Your task to perform on an android device: open device folders in google photos Image 0: 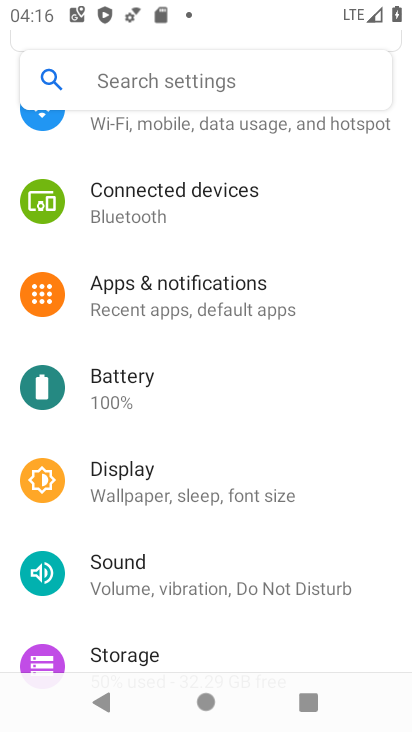
Step 0: press home button
Your task to perform on an android device: open device folders in google photos Image 1: 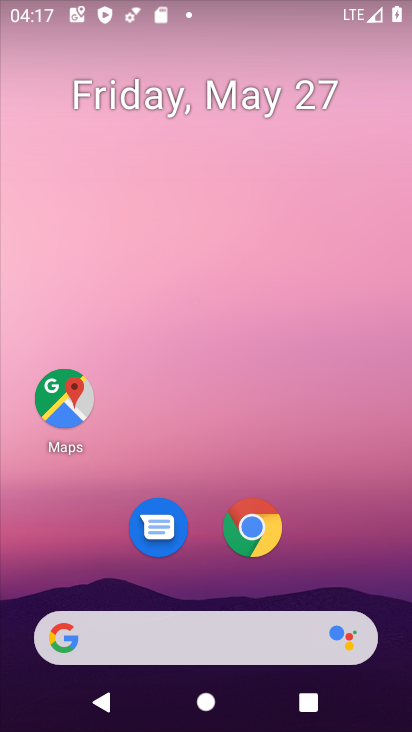
Step 1: drag from (301, 482) to (245, 117)
Your task to perform on an android device: open device folders in google photos Image 2: 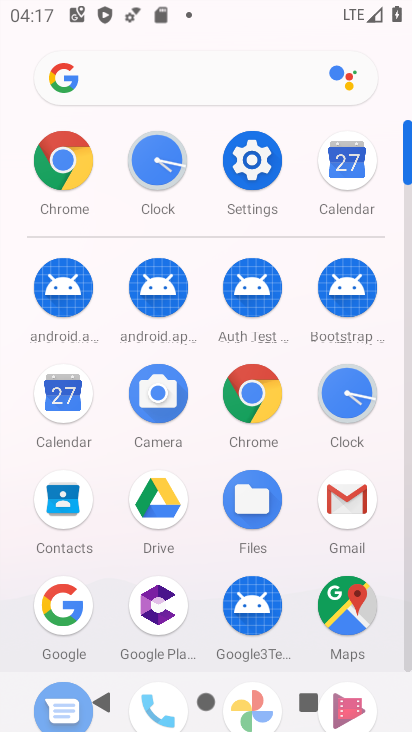
Step 2: drag from (290, 639) to (309, 293)
Your task to perform on an android device: open device folders in google photos Image 3: 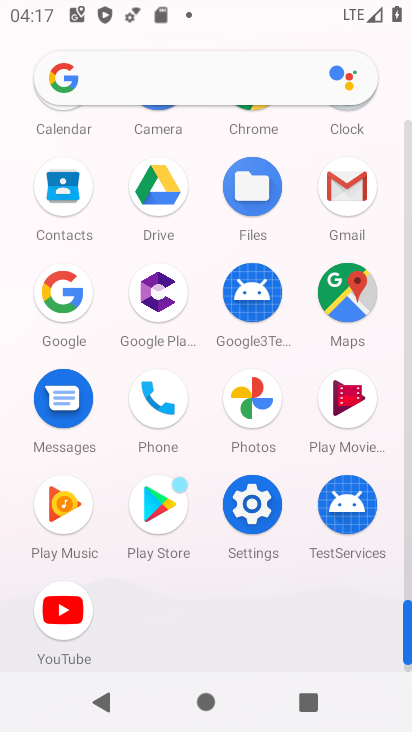
Step 3: click (257, 396)
Your task to perform on an android device: open device folders in google photos Image 4: 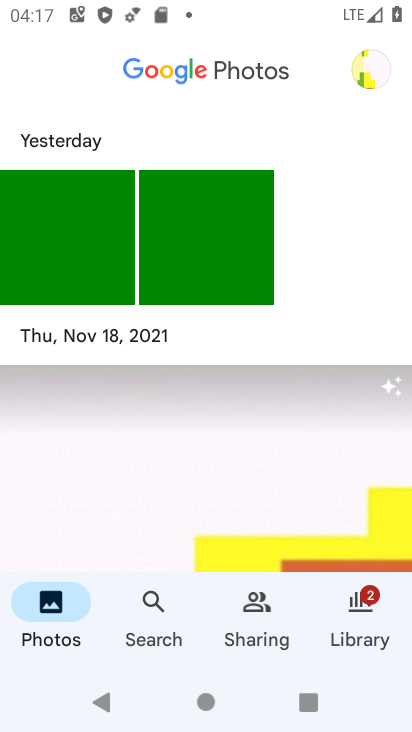
Step 4: press back button
Your task to perform on an android device: open device folders in google photos Image 5: 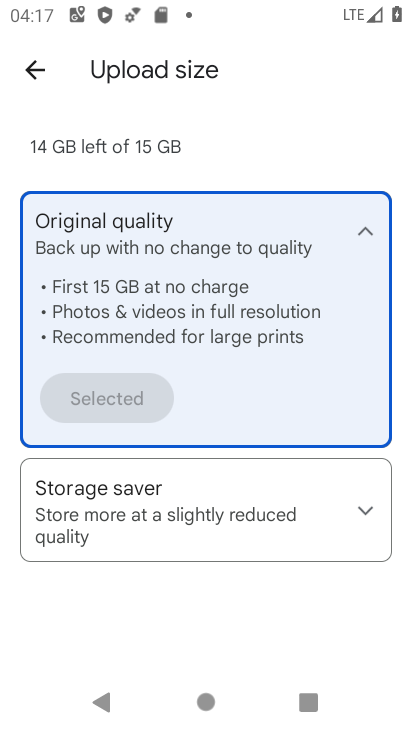
Step 5: click (33, 71)
Your task to perform on an android device: open device folders in google photos Image 6: 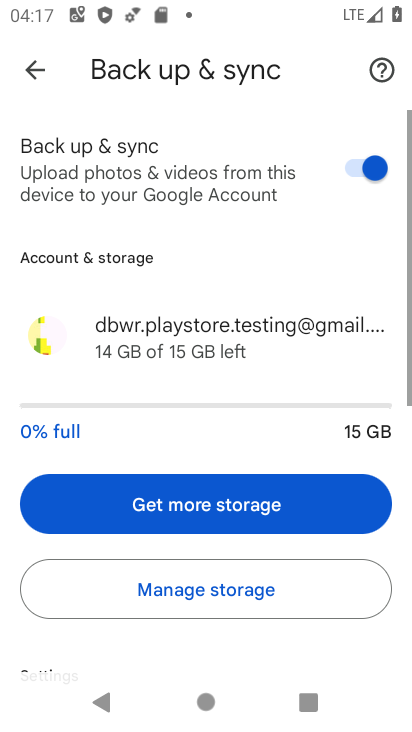
Step 6: click (33, 71)
Your task to perform on an android device: open device folders in google photos Image 7: 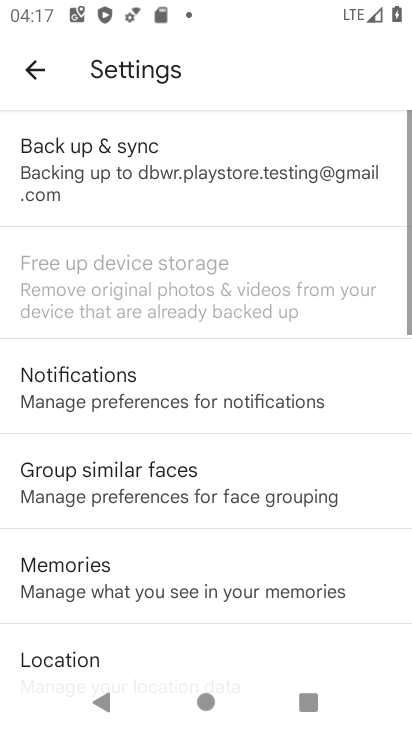
Step 7: click (33, 71)
Your task to perform on an android device: open device folders in google photos Image 8: 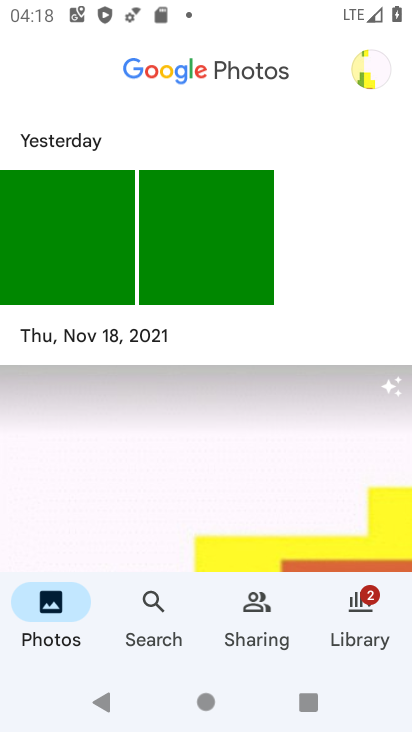
Step 8: click (364, 59)
Your task to perform on an android device: open device folders in google photos Image 9: 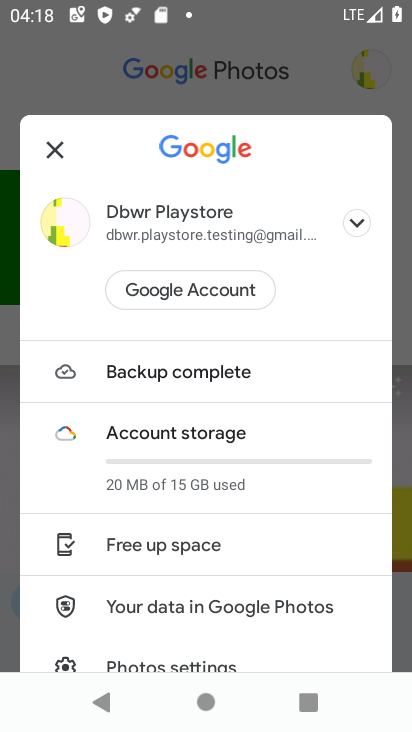
Step 9: drag from (281, 578) to (281, 422)
Your task to perform on an android device: open device folders in google photos Image 10: 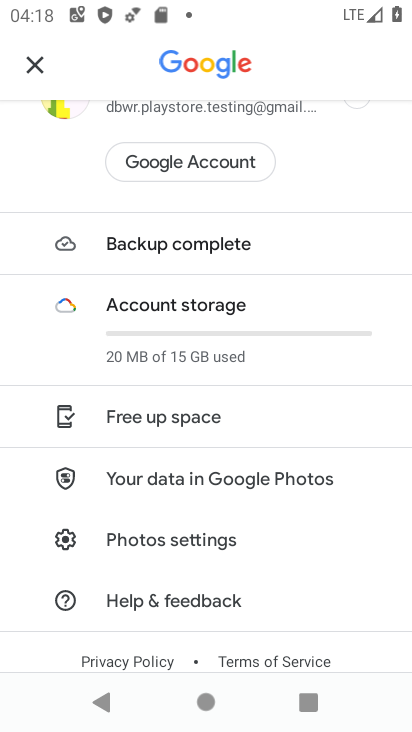
Step 10: drag from (218, 535) to (214, 253)
Your task to perform on an android device: open device folders in google photos Image 11: 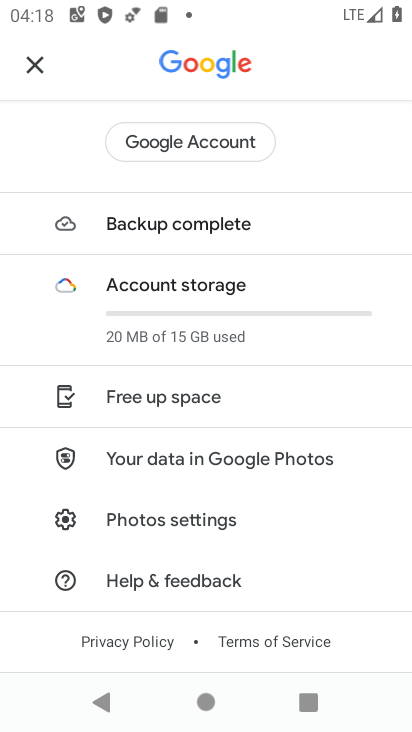
Step 11: drag from (284, 497) to (282, 125)
Your task to perform on an android device: open device folders in google photos Image 12: 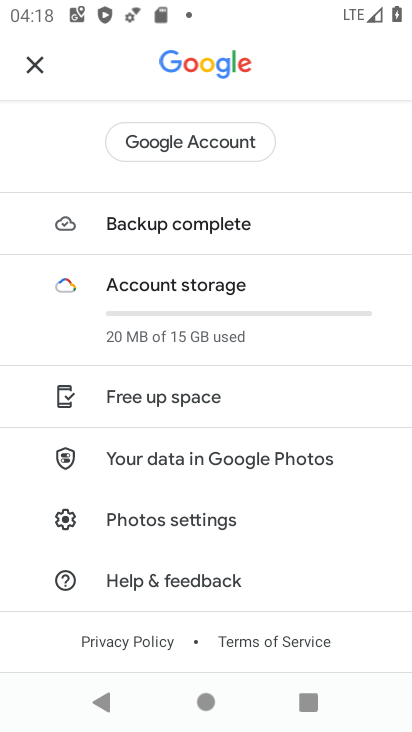
Step 12: click (125, 529)
Your task to perform on an android device: open device folders in google photos Image 13: 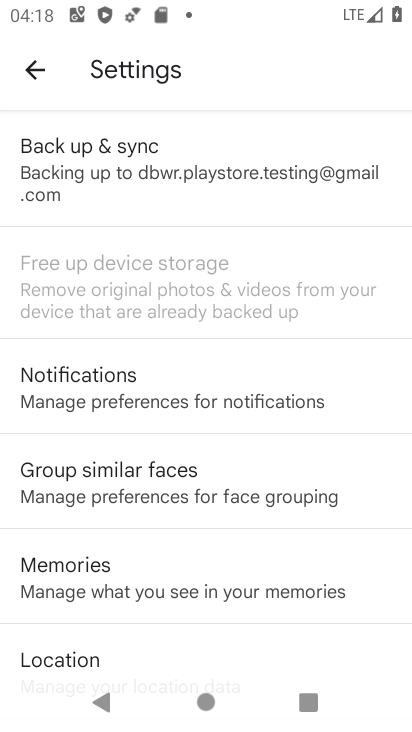
Step 13: task complete